Your task to perform on an android device: allow notifications from all sites in the chrome app Image 0: 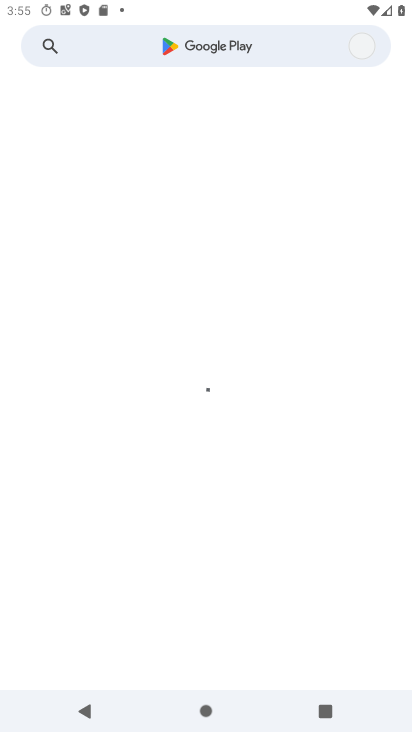
Step 0: press home button
Your task to perform on an android device: allow notifications from all sites in the chrome app Image 1: 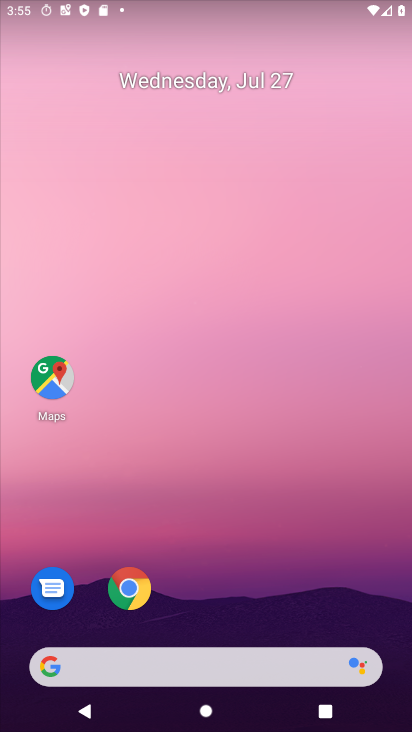
Step 1: drag from (247, 621) to (285, 321)
Your task to perform on an android device: allow notifications from all sites in the chrome app Image 2: 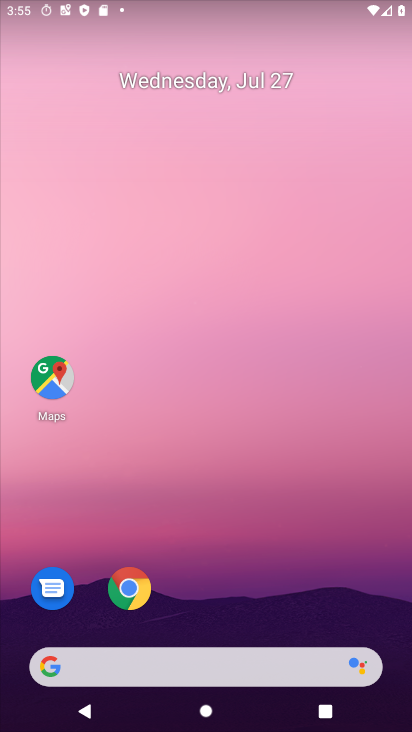
Step 2: drag from (250, 613) to (95, 24)
Your task to perform on an android device: allow notifications from all sites in the chrome app Image 3: 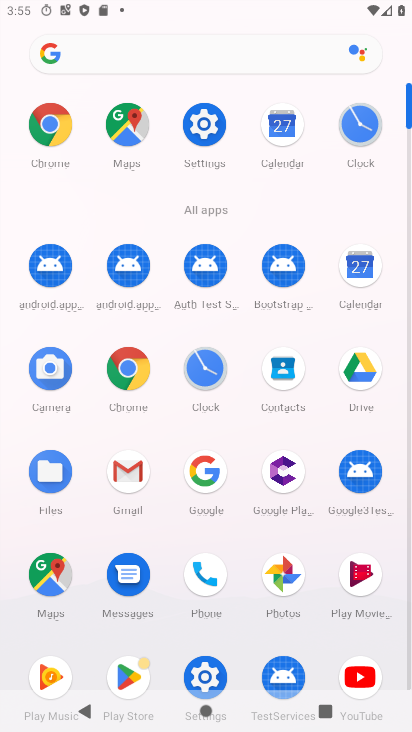
Step 3: click (55, 143)
Your task to perform on an android device: allow notifications from all sites in the chrome app Image 4: 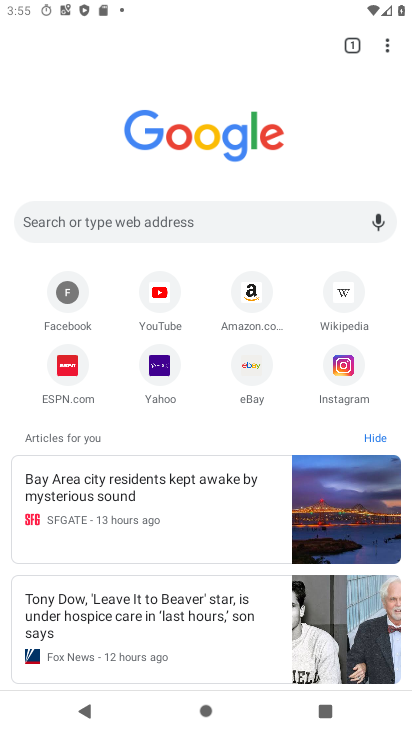
Step 4: drag from (391, 44) to (243, 432)
Your task to perform on an android device: allow notifications from all sites in the chrome app Image 5: 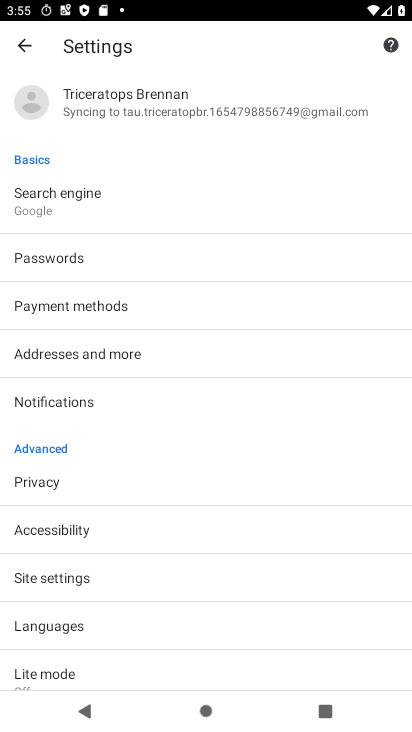
Step 5: click (55, 578)
Your task to perform on an android device: allow notifications from all sites in the chrome app Image 6: 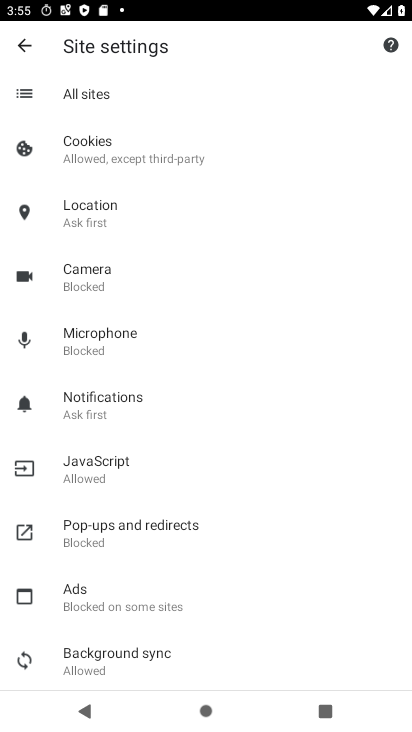
Step 6: click (90, 407)
Your task to perform on an android device: allow notifications from all sites in the chrome app Image 7: 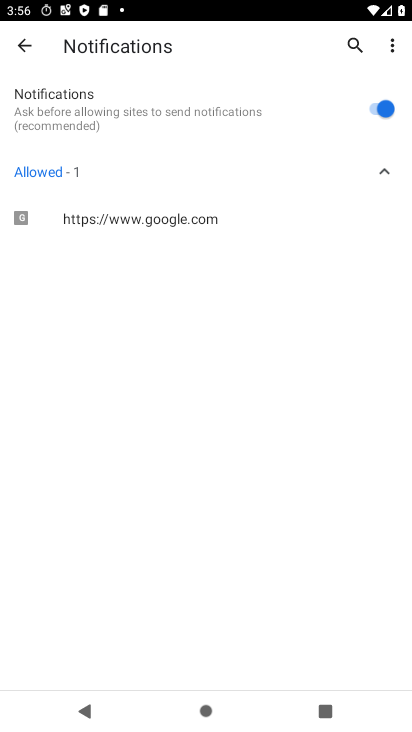
Step 7: task complete